Your task to perform on an android device: Do I have any events this weekend? Image 0: 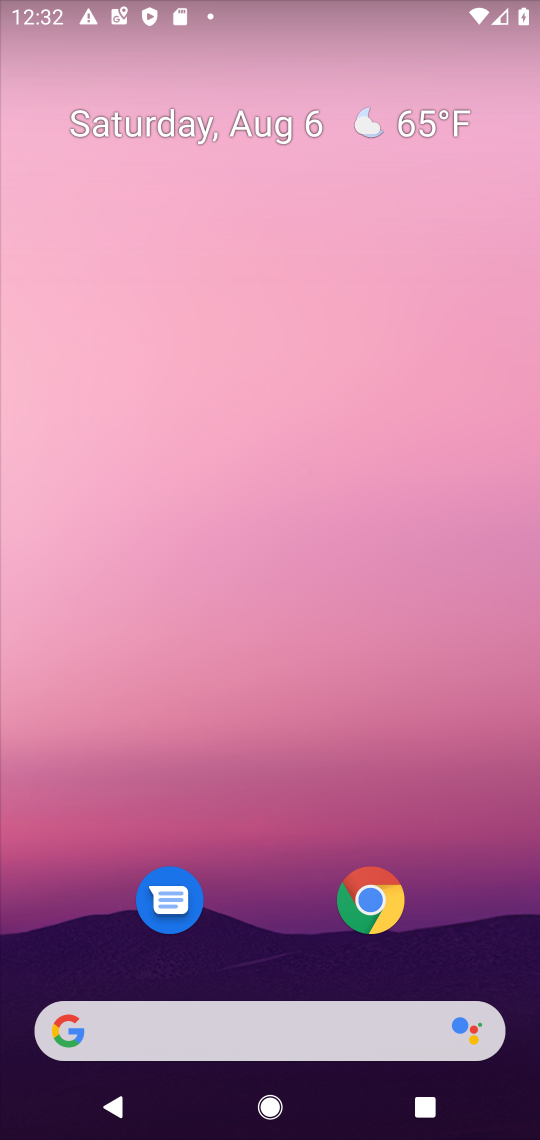
Step 0: drag from (281, 776) to (281, 106)
Your task to perform on an android device: Do I have any events this weekend? Image 1: 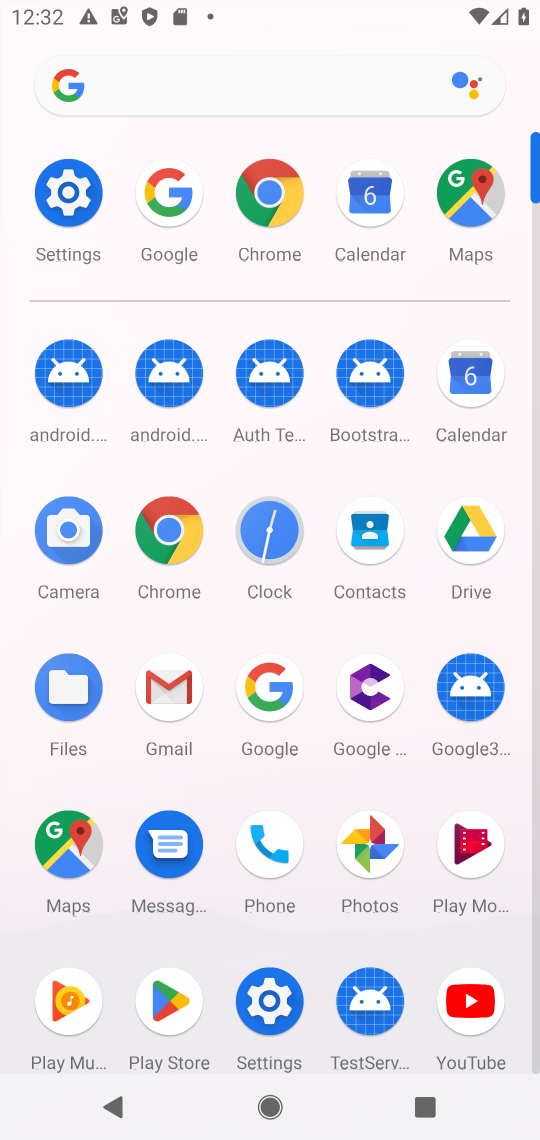
Step 1: click (469, 370)
Your task to perform on an android device: Do I have any events this weekend? Image 2: 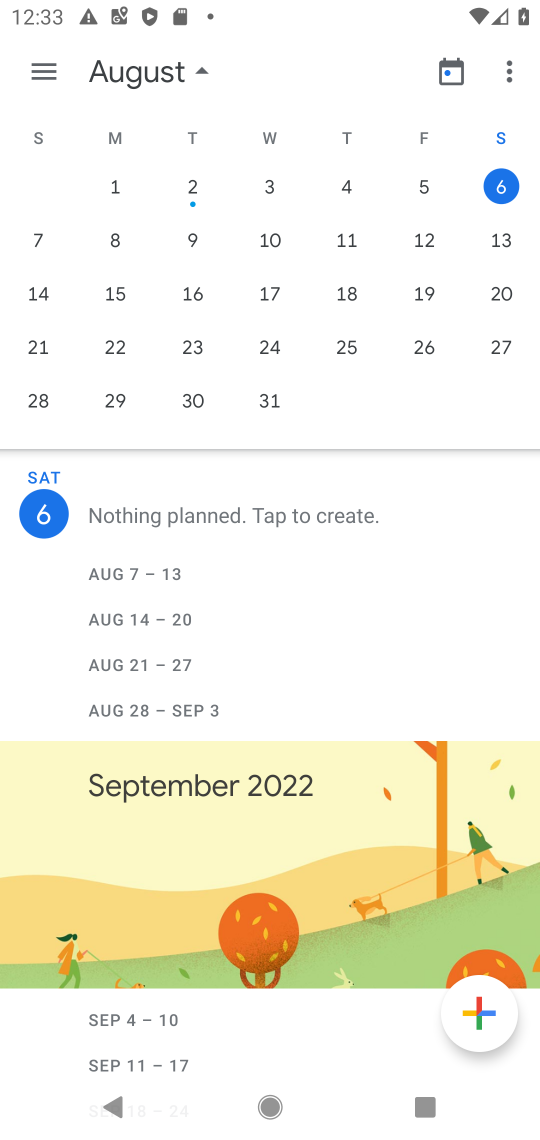
Step 2: click (502, 179)
Your task to perform on an android device: Do I have any events this weekend? Image 3: 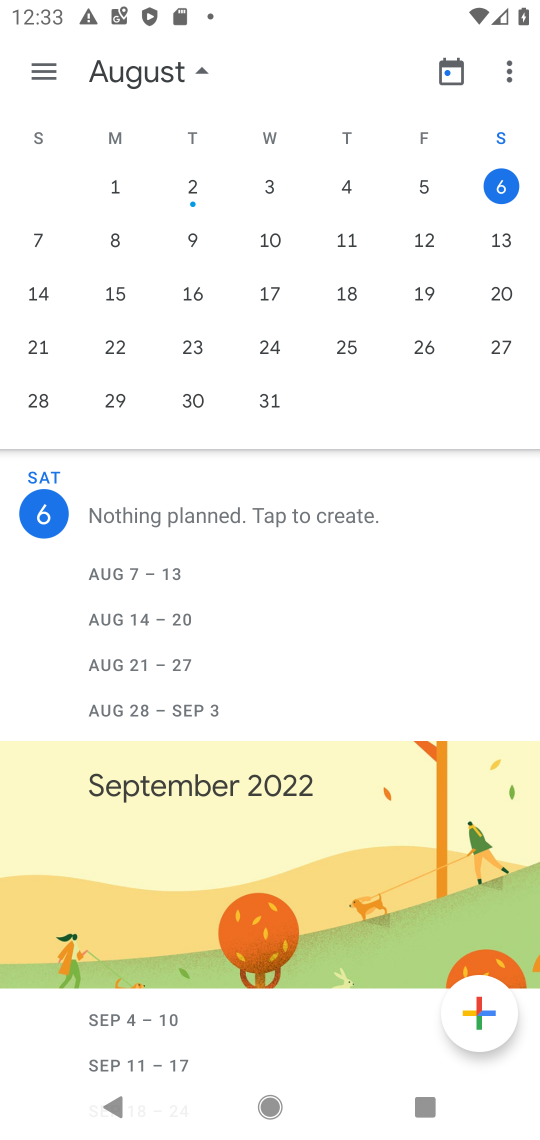
Step 3: click (39, 74)
Your task to perform on an android device: Do I have any events this weekend? Image 4: 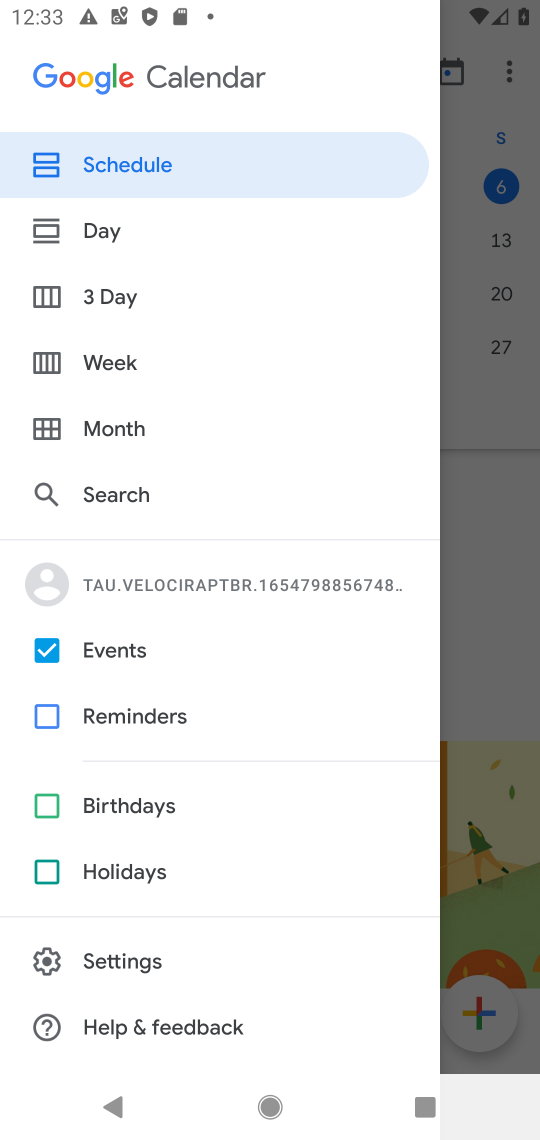
Step 4: click (105, 358)
Your task to perform on an android device: Do I have any events this weekend? Image 5: 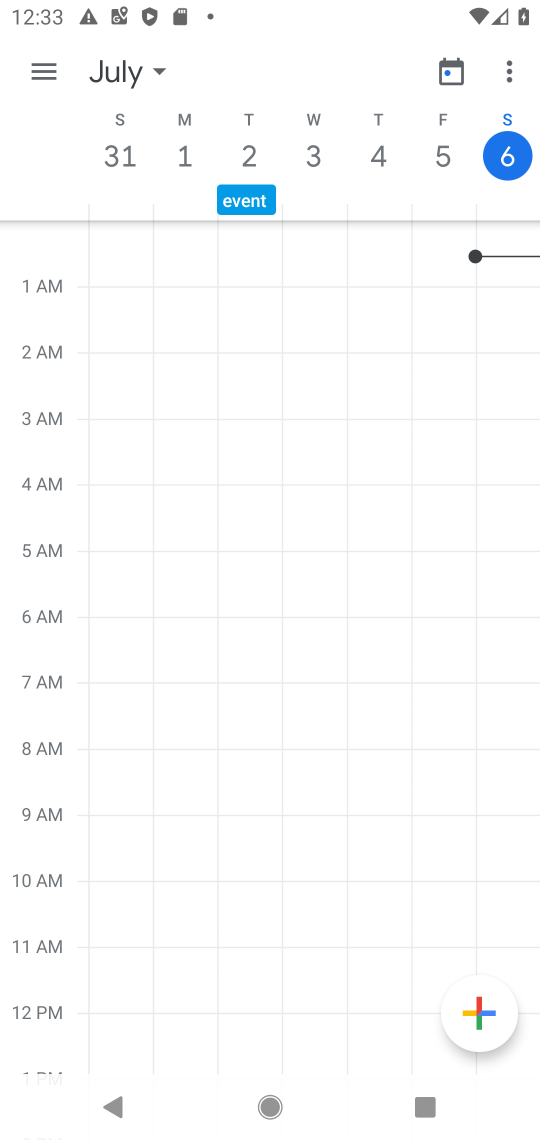
Step 5: task complete